Your task to perform on an android device: check the backup settings in the google photos Image 0: 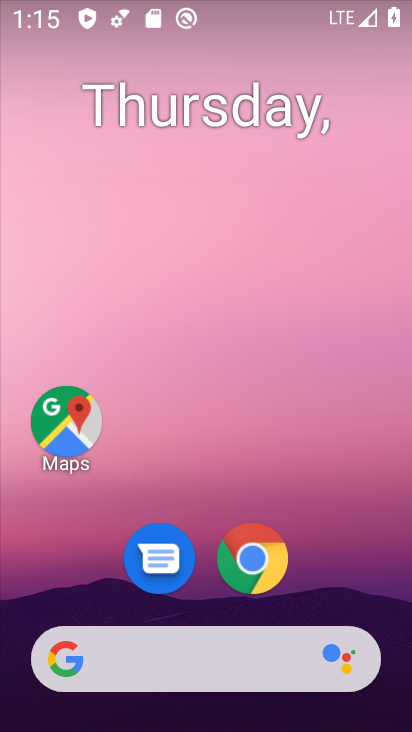
Step 0: drag from (335, 579) to (300, 299)
Your task to perform on an android device: check the backup settings in the google photos Image 1: 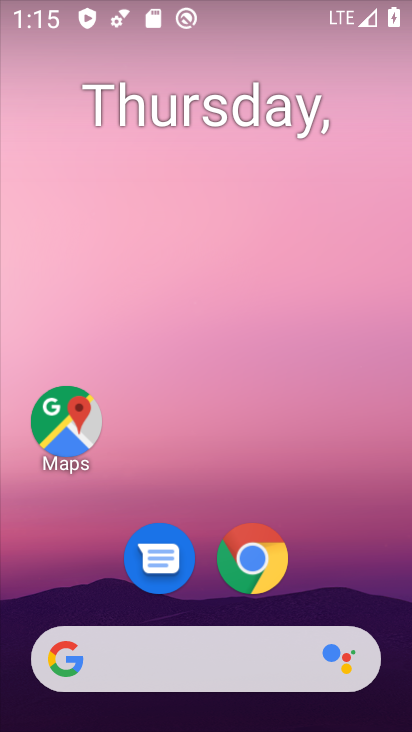
Step 1: drag from (320, 505) to (297, 89)
Your task to perform on an android device: check the backup settings in the google photos Image 2: 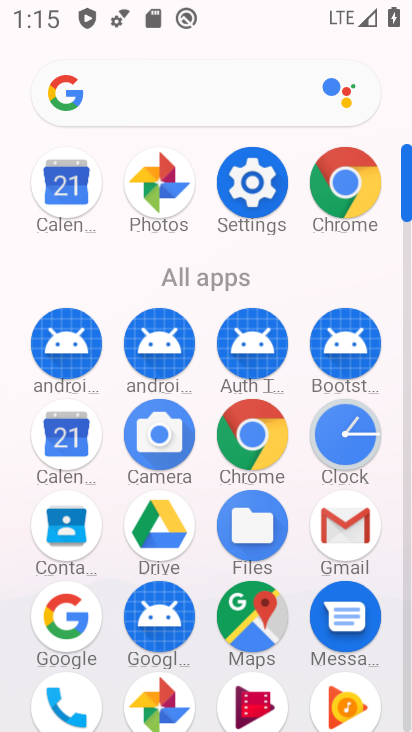
Step 2: click (174, 193)
Your task to perform on an android device: check the backup settings in the google photos Image 3: 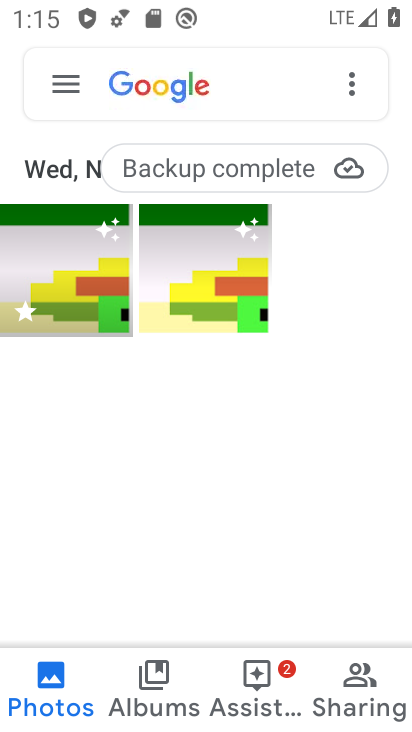
Step 3: click (342, 80)
Your task to perform on an android device: check the backup settings in the google photos Image 4: 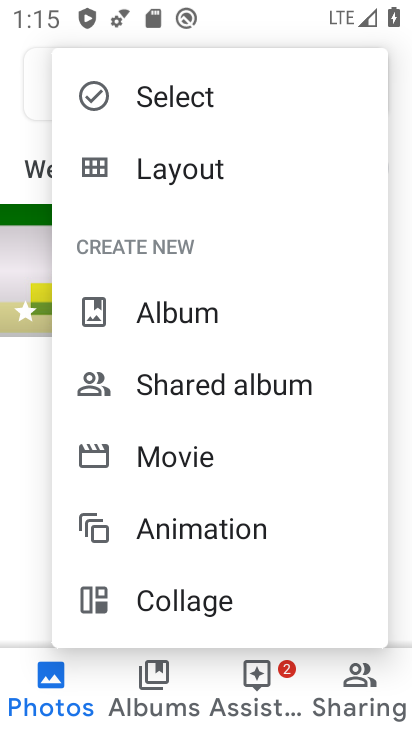
Step 4: click (18, 349)
Your task to perform on an android device: check the backup settings in the google photos Image 5: 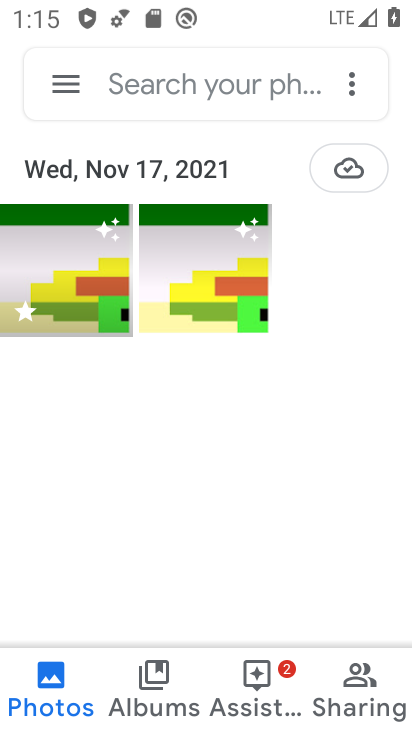
Step 5: click (48, 77)
Your task to perform on an android device: check the backup settings in the google photos Image 6: 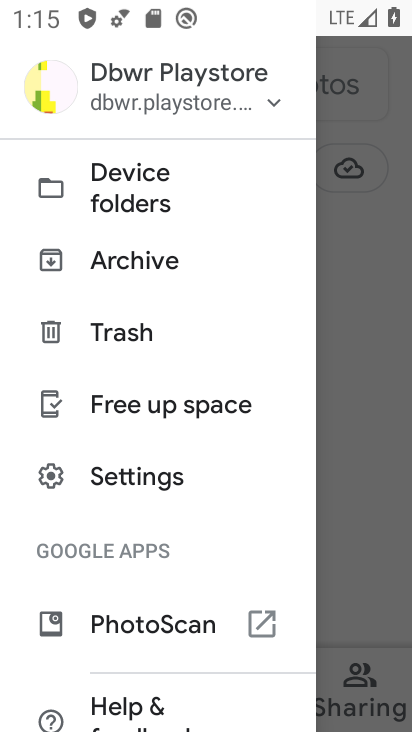
Step 6: click (106, 459)
Your task to perform on an android device: check the backup settings in the google photos Image 7: 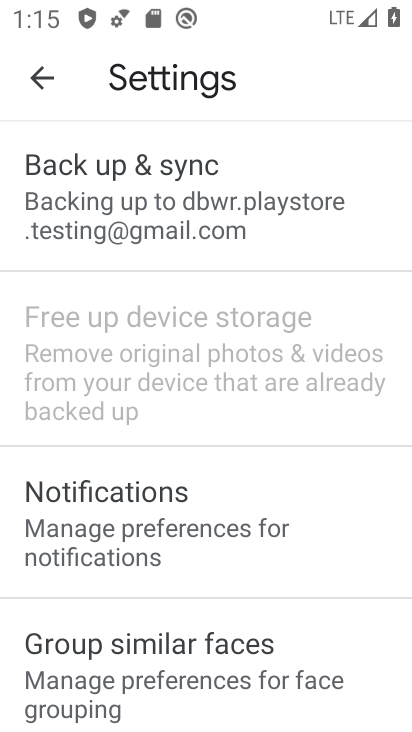
Step 7: click (186, 238)
Your task to perform on an android device: check the backup settings in the google photos Image 8: 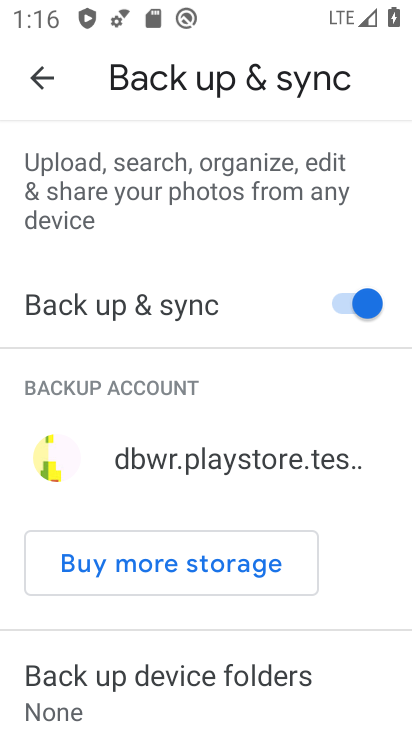
Step 8: task complete